Your task to perform on an android device: Go to wifi settings Image 0: 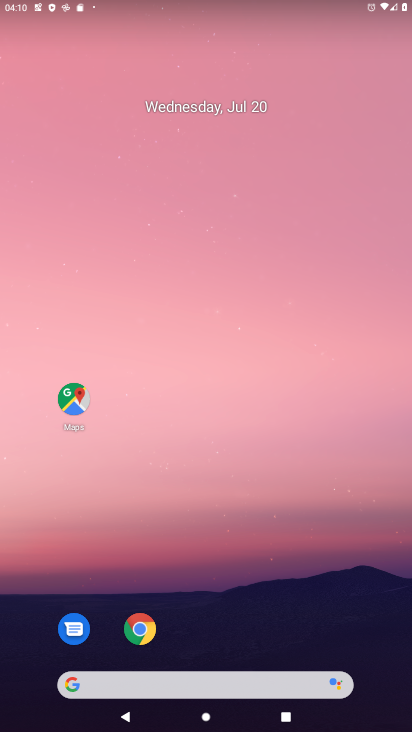
Step 0: drag from (376, 661) to (309, 82)
Your task to perform on an android device: Go to wifi settings Image 1: 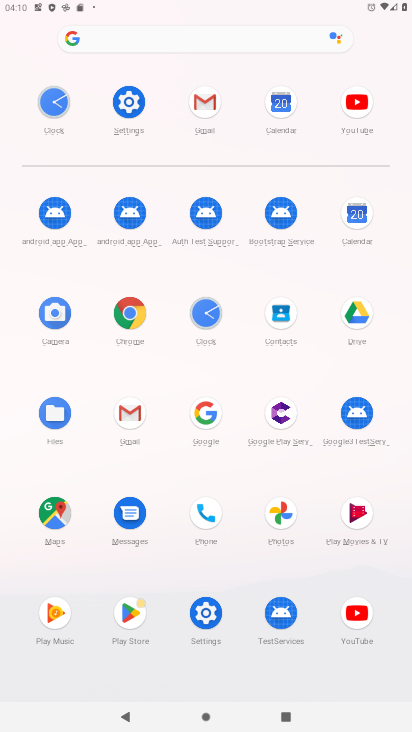
Step 1: click (207, 614)
Your task to perform on an android device: Go to wifi settings Image 2: 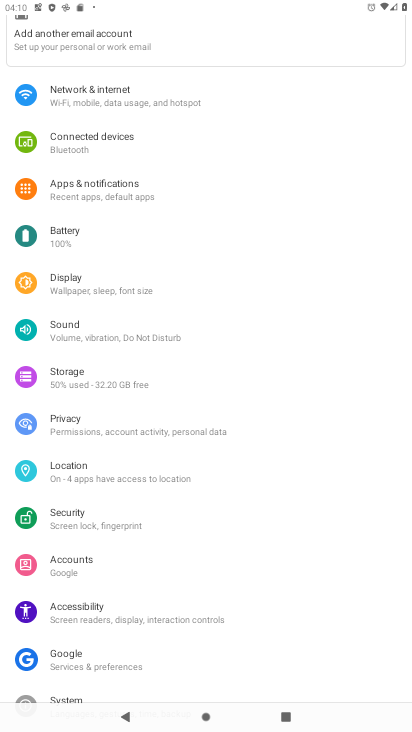
Step 2: click (98, 96)
Your task to perform on an android device: Go to wifi settings Image 3: 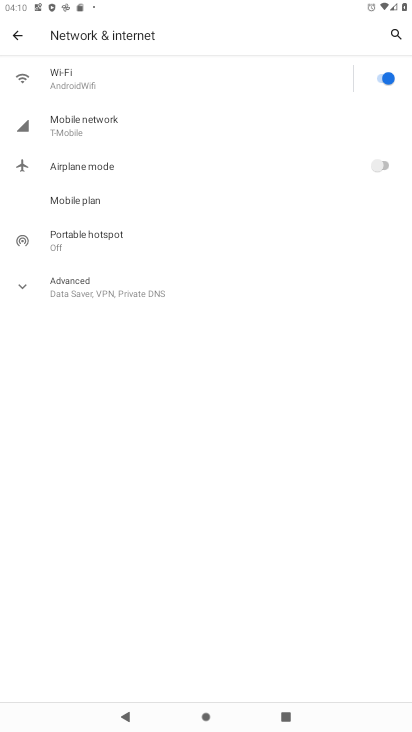
Step 3: click (69, 73)
Your task to perform on an android device: Go to wifi settings Image 4: 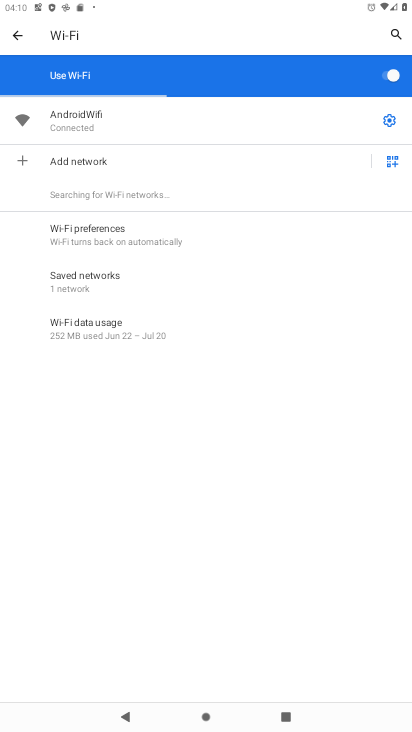
Step 4: click (387, 120)
Your task to perform on an android device: Go to wifi settings Image 5: 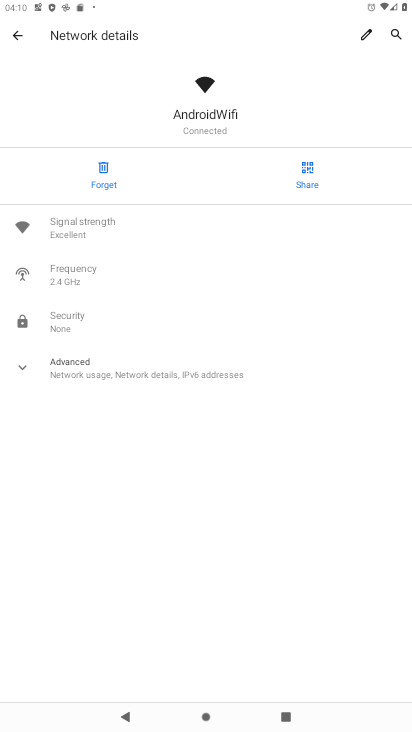
Step 5: task complete